Your task to perform on an android device: open sync settings in chrome Image 0: 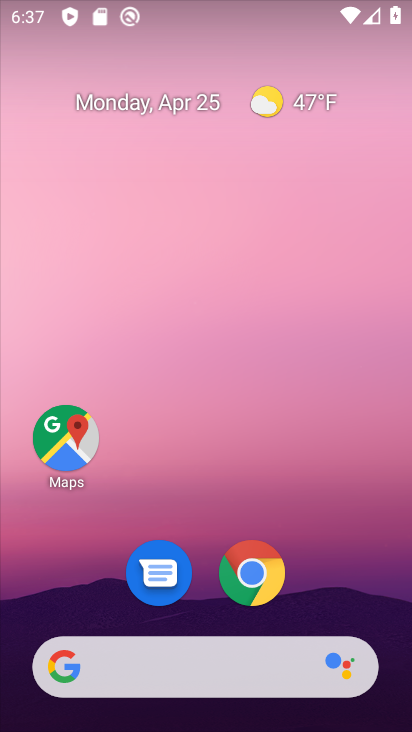
Step 0: click (251, 572)
Your task to perform on an android device: open sync settings in chrome Image 1: 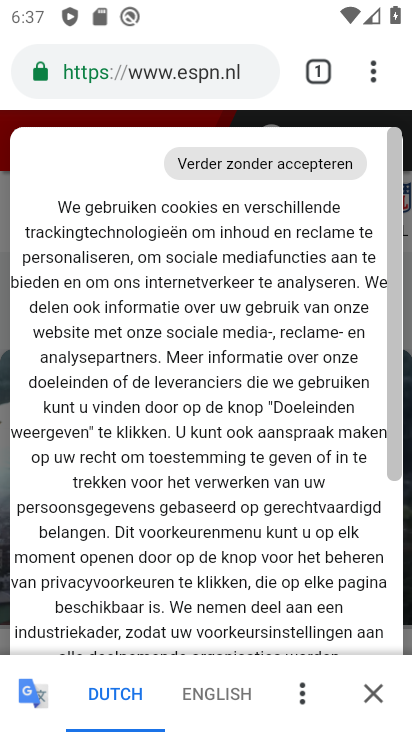
Step 1: click (366, 78)
Your task to perform on an android device: open sync settings in chrome Image 2: 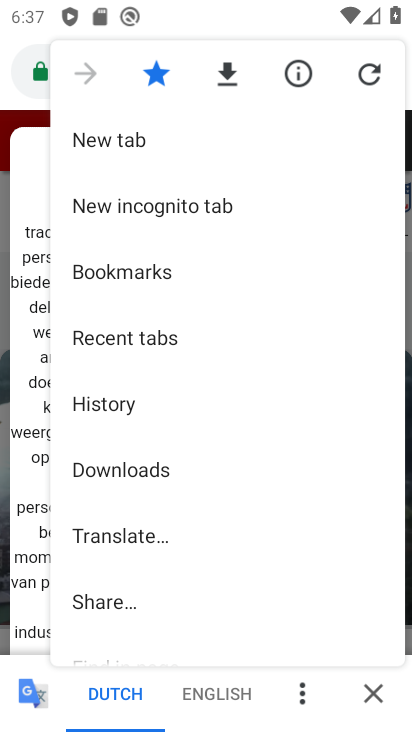
Step 2: drag from (216, 543) to (210, 134)
Your task to perform on an android device: open sync settings in chrome Image 3: 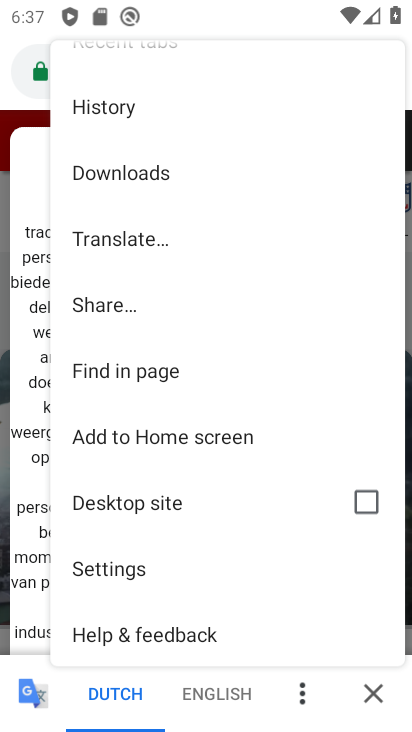
Step 3: click (232, 594)
Your task to perform on an android device: open sync settings in chrome Image 4: 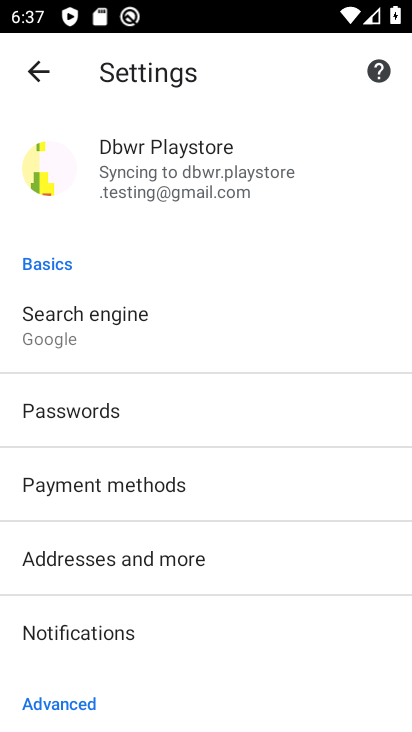
Step 4: drag from (253, 611) to (253, 145)
Your task to perform on an android device: open sync settings in chrome Image 5: 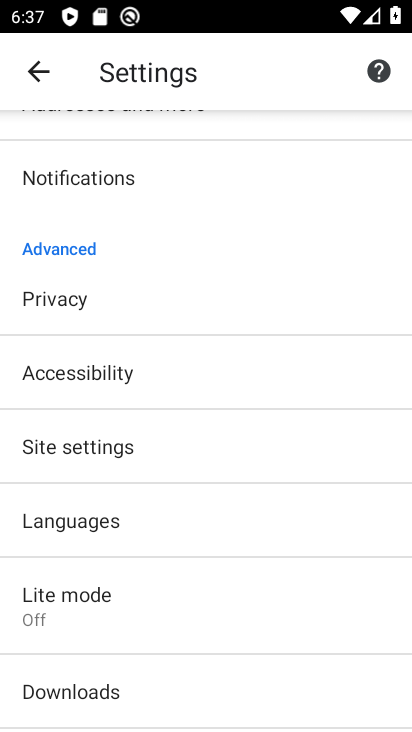
Step 5: drag from (177, 591) to (157, 216)
Your task to perform on an android device: open sync settings in chrome Image 6: 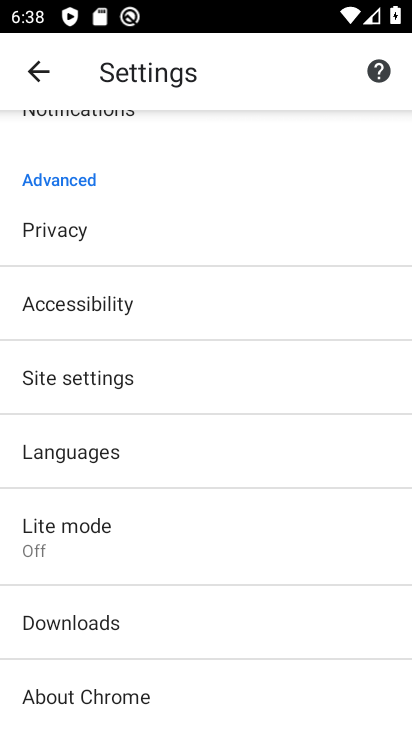
Step 6: click (147, 360)
Your task to perform on an android device: open sync settings in chrome Image 7: 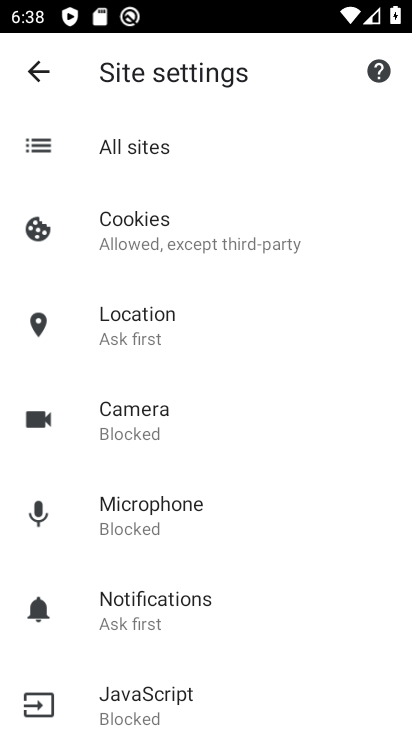
Step 7: drag from (246, 672) to (216, 310)
Your task to perform on an android device: open sync settings in chrome Image 8: 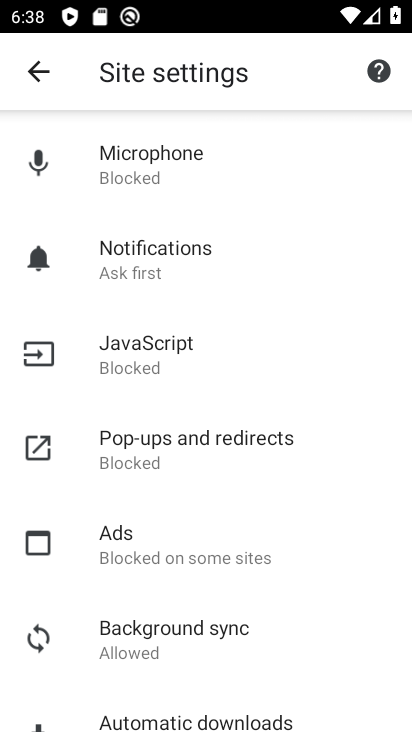
Step 8: click (188, 631)
Your task to perform on an android device: open sync settings in chrome Image 9: 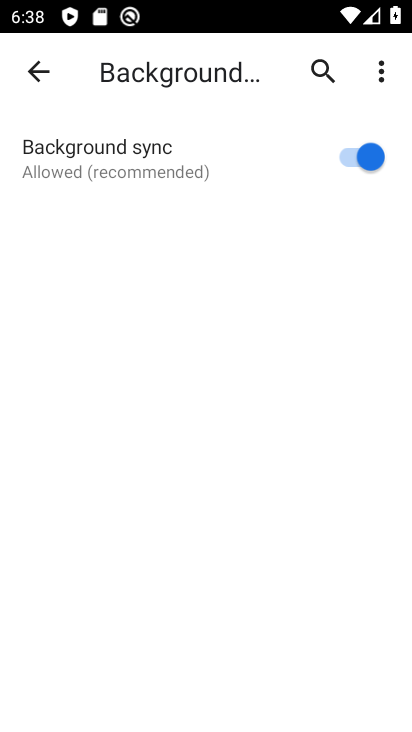
Step 9: task complete